Your task to perform on an android device: change timer sound Image 0: 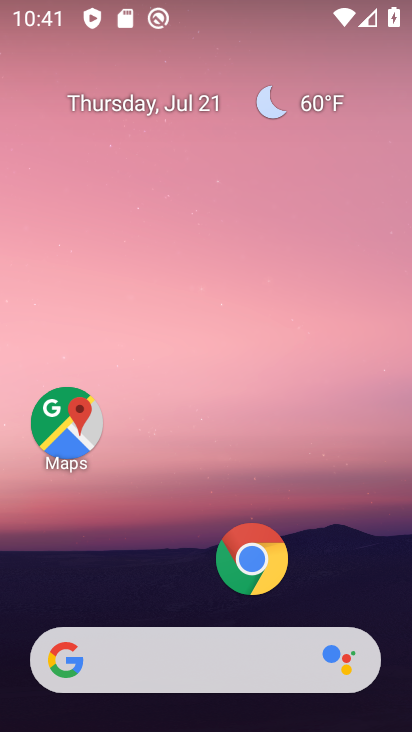
Step 0: drag from (120, 594) to (186, 19)
Your task to perform on an android device: change timer sound Image 1: 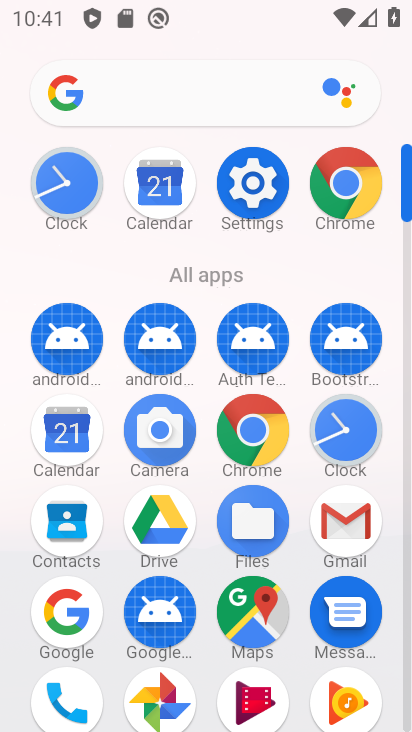
Step 1: click (241, 174)
Your task to perform on an android device: change timer sound Image 2: 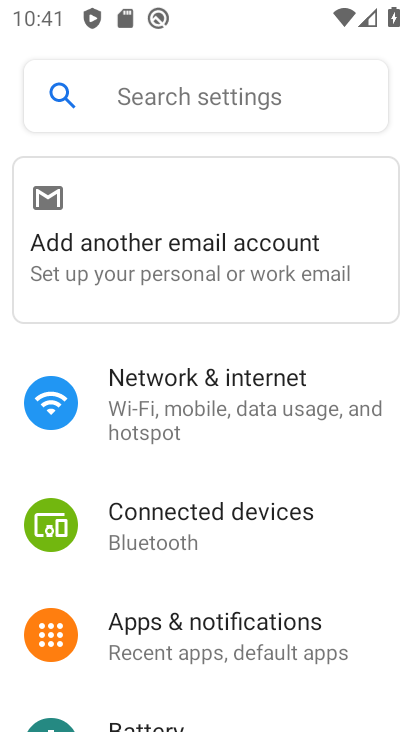
Step 2: press back button
Your task to perform on an android device: change timer sound Image 3: 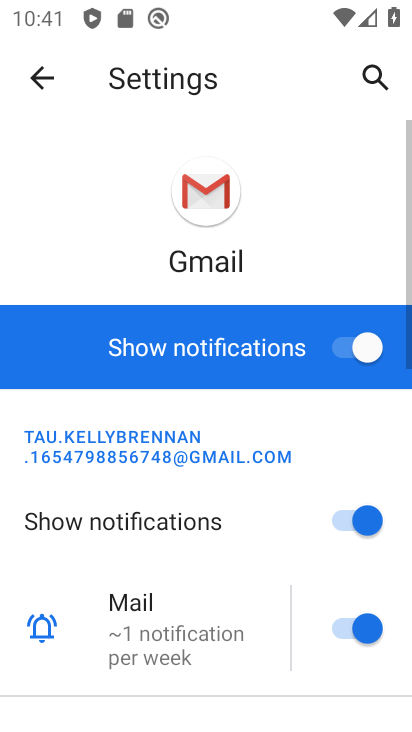
Step 3: press back button
Your task to perform on an android device: change timer sound Image 4: 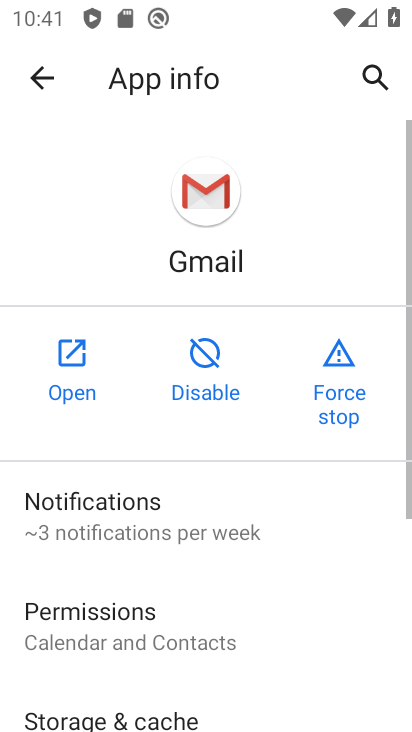
Step 4: press back button
Your task to perform on an android device: change timer sound Image 5: 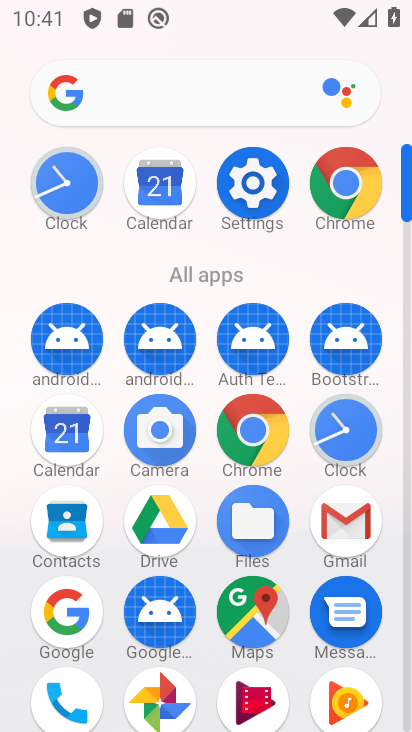
Step 5: click (68, 182)
Your task to perform on an android device: change timer sound Image 6: 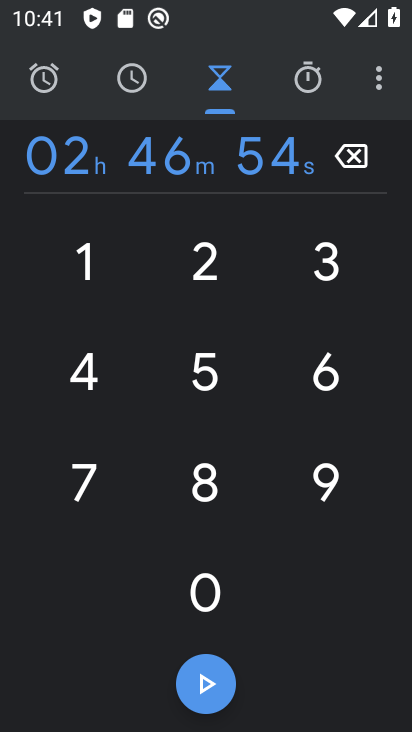
Step 6: click (375, 79)
Your task to perform on an android device: change timer sound Image 7: 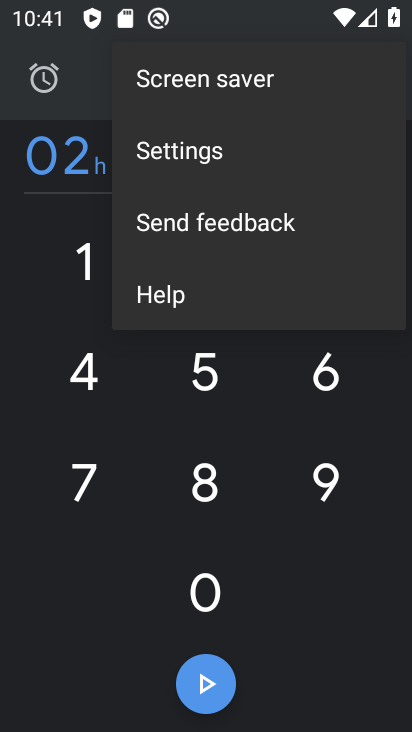
Step 7: click (233, 146)
Your task to perform on an android device: change timer sound Image 8: 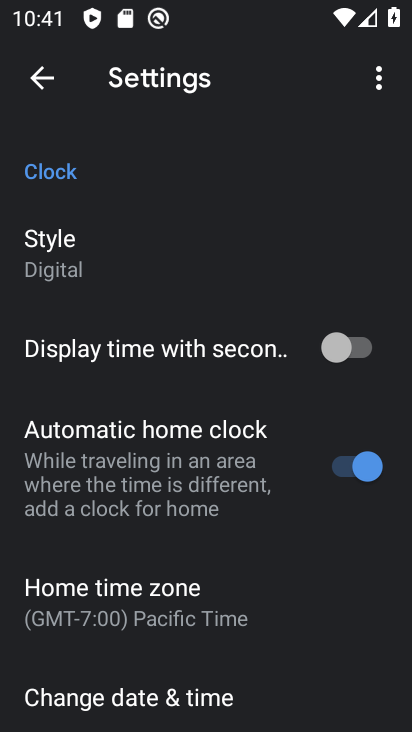
Step 8: drag from (132, 634) to (217, 112)
Your task to perform on an android device: change timer sound Image 9: 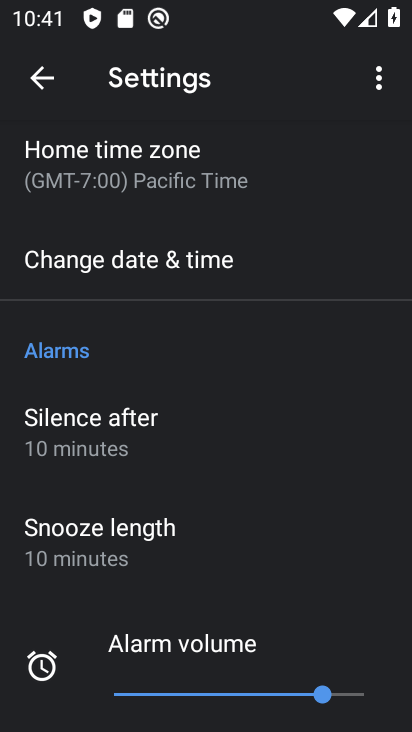
Step 9: drag from (194, 603) to (188, 119)
Your task to perform on an android device: change timer sound Image 10: 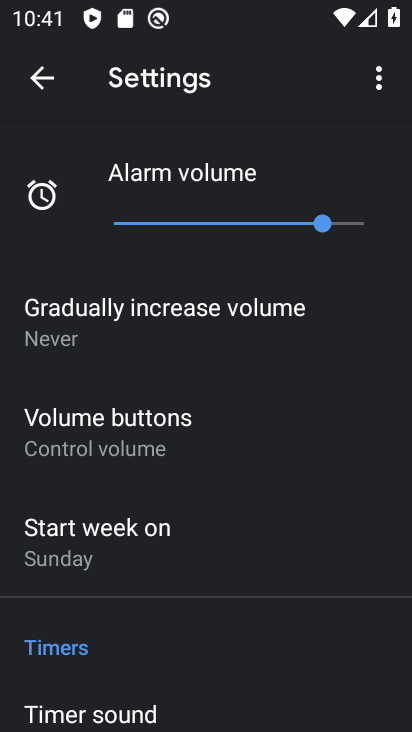
Step 10: click (110, 703)
Your task to perform on an android device: change timer sound Image 11: 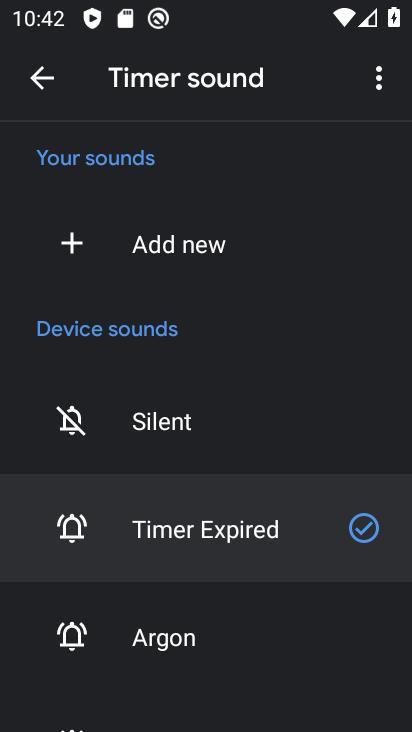
Step 11: click (182, 651)
Your task to perform on an android device: change timer sound Image 12: 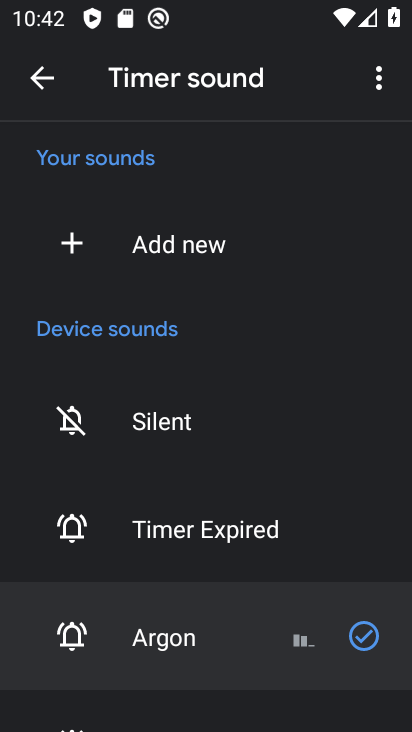
Step 12: task complete